Your task to perform on an android device: remove spam from my inbox in the gmail app Image 0: 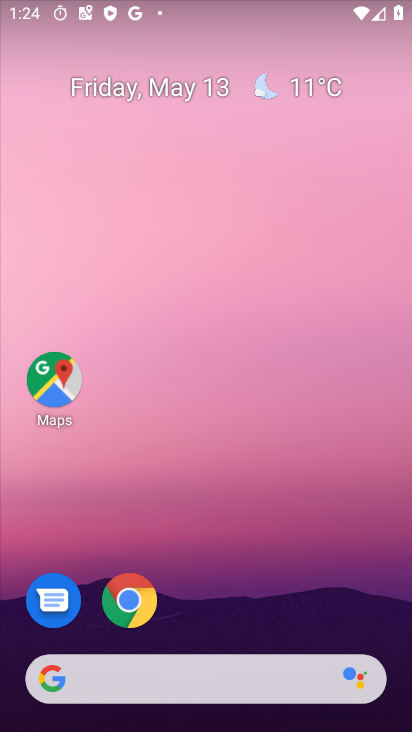
Step 0: drag from (220, 545) to (242, 98)
Your task to perform on an android device: remove spam from my inbox in the gmail app Image 1: 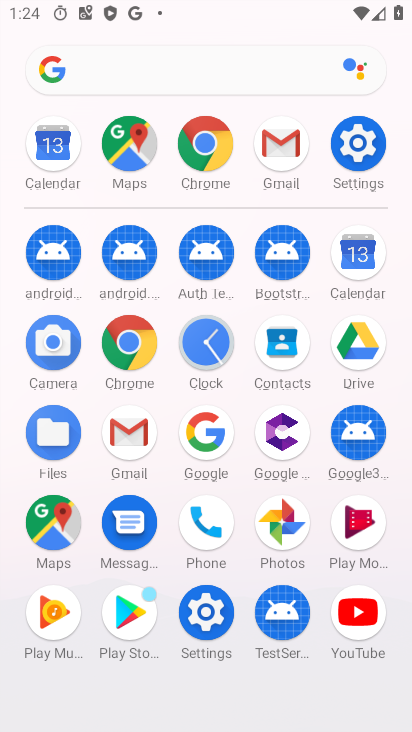
Step 1: click (130, 441)
Your task to perform on an android device: remove spam from my inbox in the gmail app Image 2: 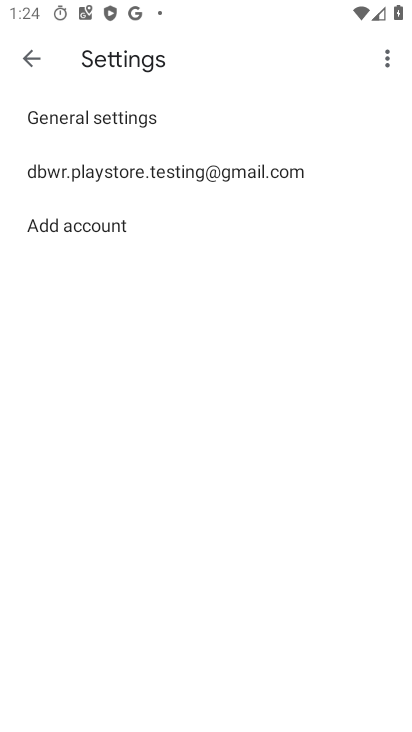
Step 2: click (43, 46)
Your task to perform on an android device: remove spam from my inbox in the gmail app Image 3: 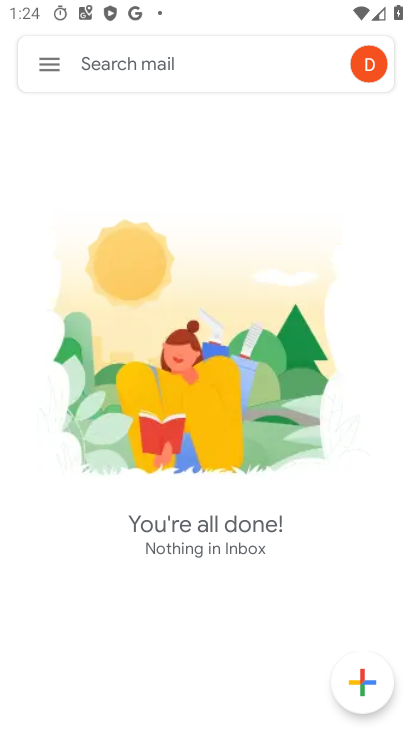
Step 3: click (45, 76)
Your task to perform on an android device: remove spam from my inbox in the gmail app Image 4: 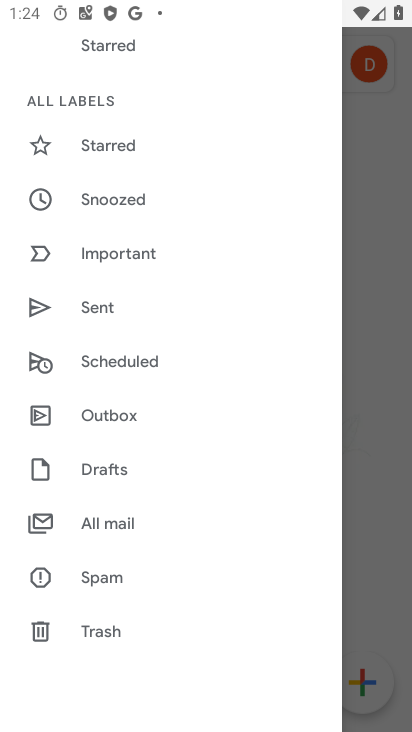
Step 4: click (104, 584)
Your task to perform on an android device: remove spam from my inbox in the gmail app Image 5: 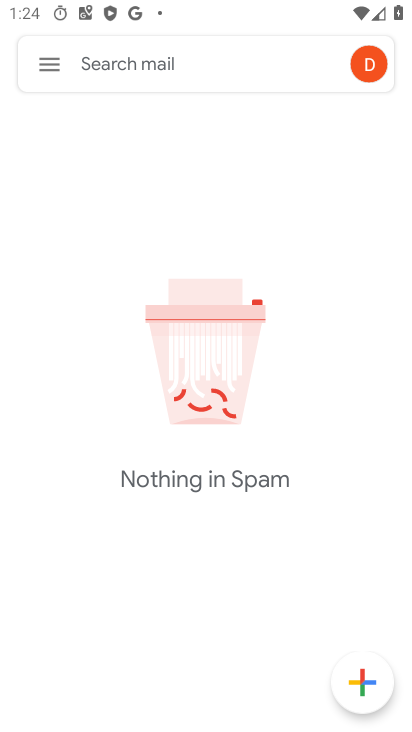
Step 5: drag from (189, 482) to (234, 271)
Your task to perform on an android device: remove spam from my inbox in the gmail app Image 6: 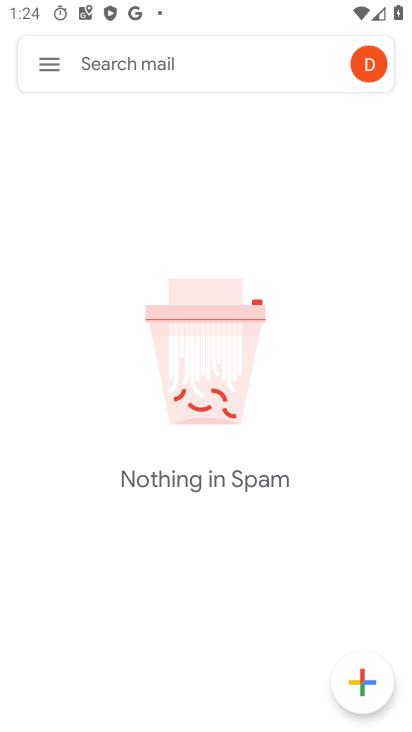
Step 6: click (47, 72)
Your task to perform on an android device: remove spam from my inbox in the gmail app Image 7: 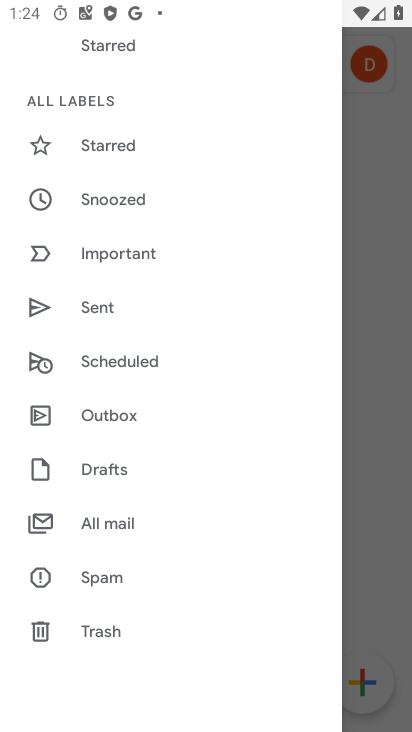
Step 7: click (138, 576)
Your task to perform on an android device: remove spam from my inbox in the gmail app Image 8: 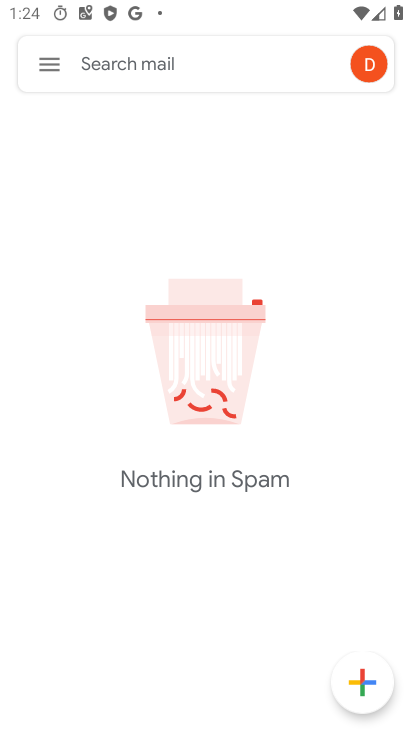
Step 8: task complete